Your task to perform on an android device: Go to Wikipedia Image 0: 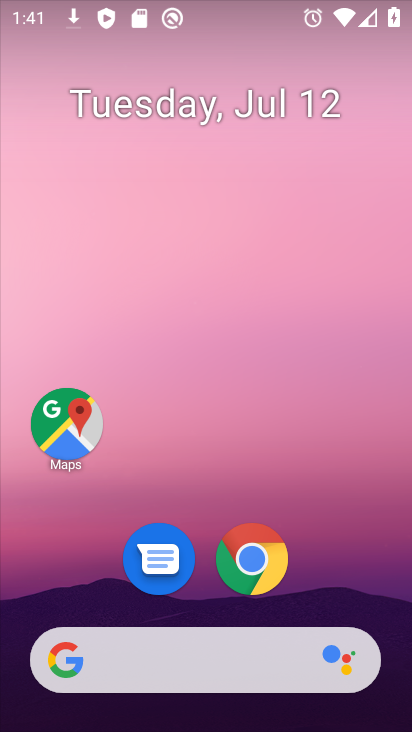
Step 0: drag from (361, 573) to (343, 112)
Your task to perform on an android device: Go to Wikipedia Image 1: 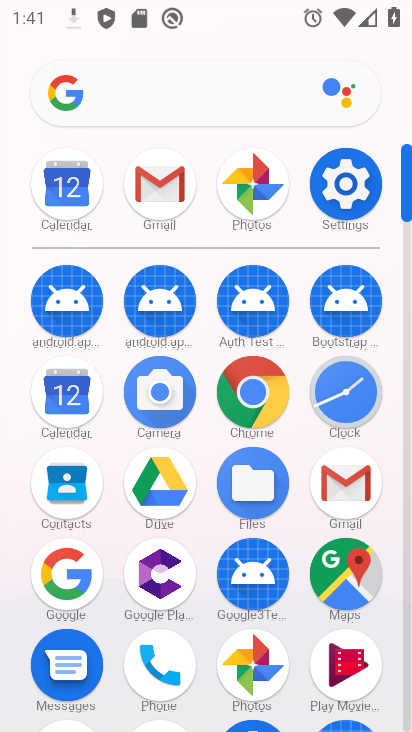
Step 1: click (271, 385)
Your task to perform on an android device: Go to Wikipedia Image 2: 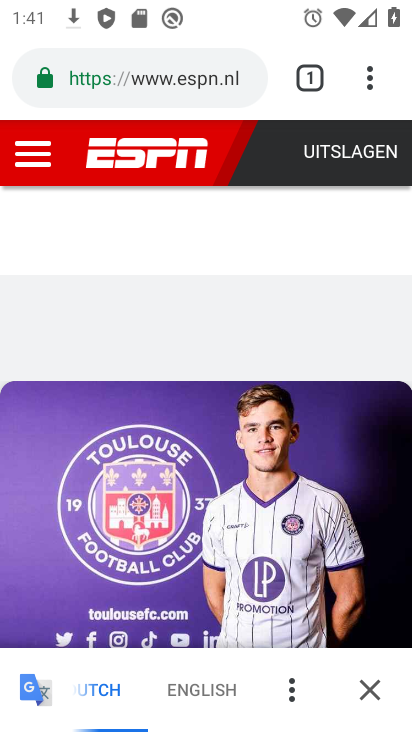
Step 2: click (215, 80)
Your task to perform on an android device: Go to Wikipedia Image 3: 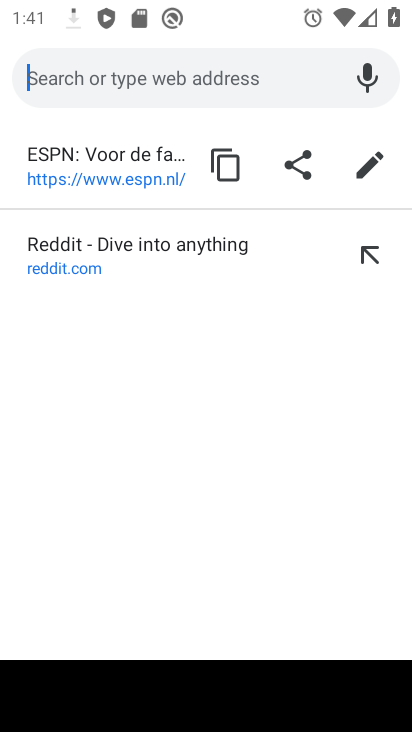
Step 3: type "wikipedia"
Your task to perform on an android device: Go to Wikipedia Image 4: 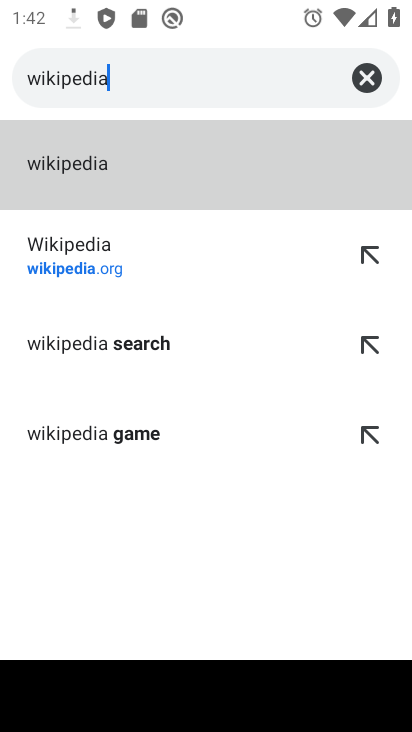
Step 4: click (203, 173)
Your task to perform on an android device: Go to Wikipedia Image 5: 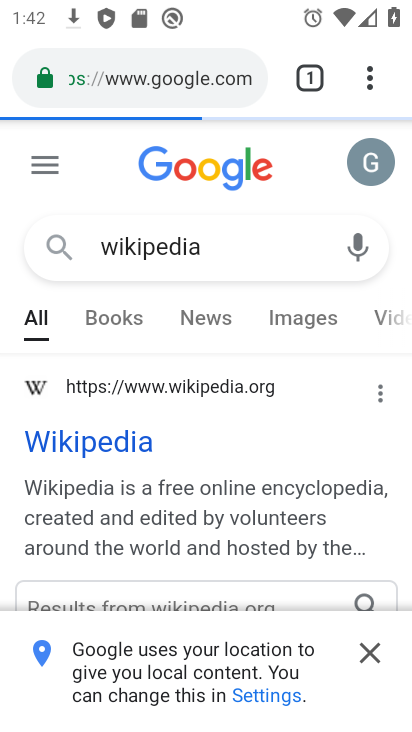
Step 5: task complete